Your task to perform on an android device: show emergency info Image 0: 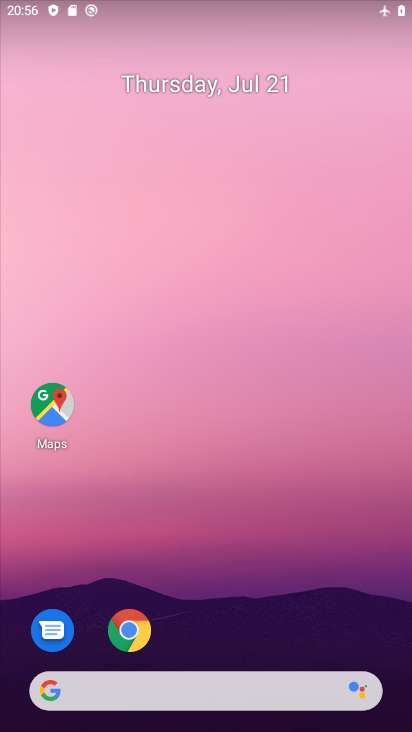
Step 0: drag from (252, 684) to (309, 316)
Your task to perform on an android device: show emergency info Image 1: 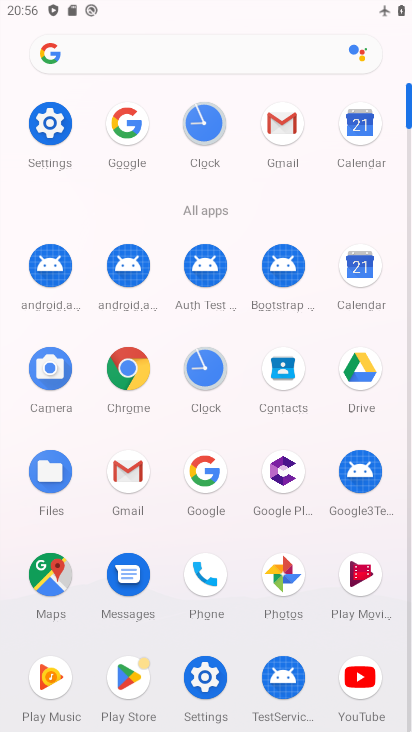
Step 1: click (45, 108)
Your task to perform on an android device: show emergency info Image 2: 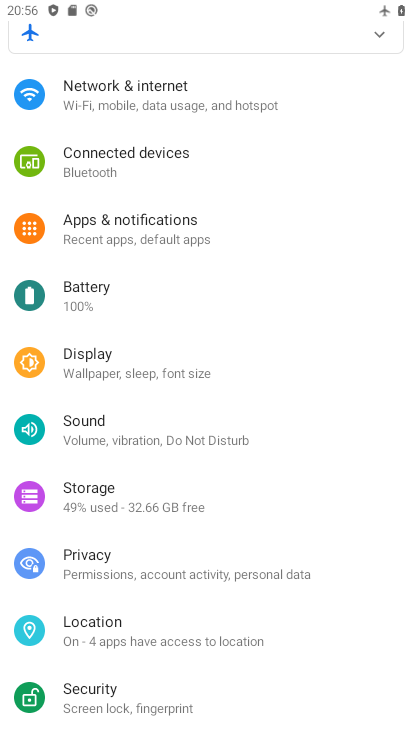
Step 2: drag from (112, 693) to (146, 446)
Your task to perform on an android device: show emergency info Image 3: 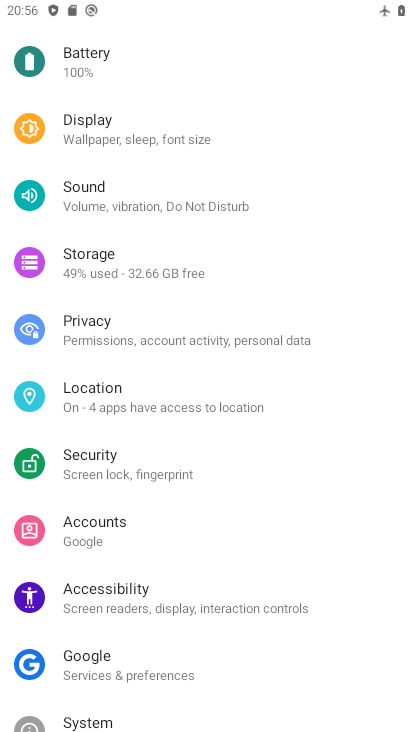
Step 3: drag from (136, 679) to (189, 300)
Your task to perform on an android device: show emergency info Image 4: 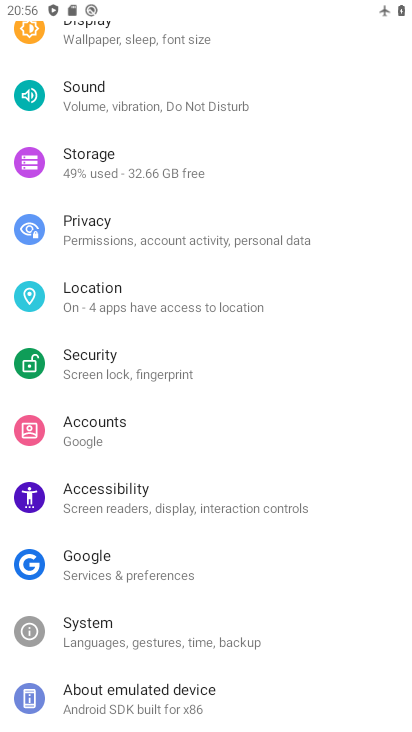
Step 4: click (126, 692)
Your task to perform on an android device: show emergency info Image 5: 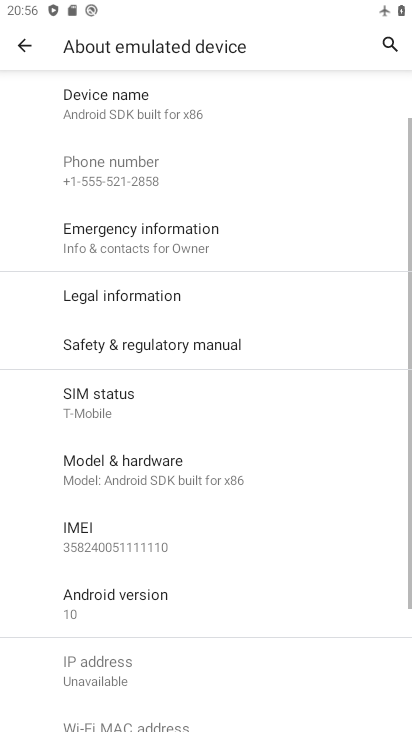
Step 5: click (155, 259)
Your task to perform on an android device: show emergency info Image 6: 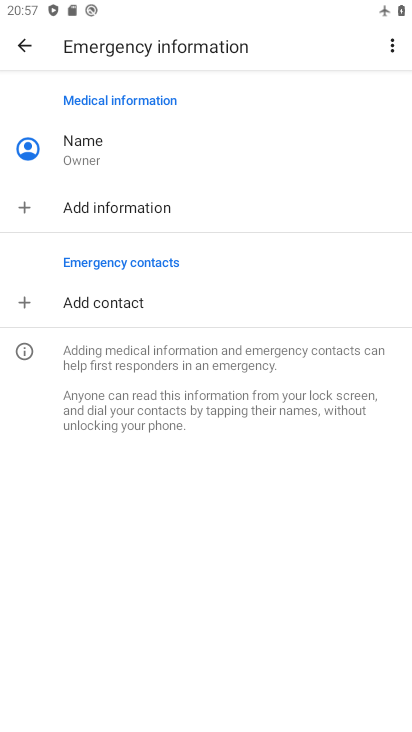
Step 6: task complete